Your task to perform on an android device: Check the news Image 0: 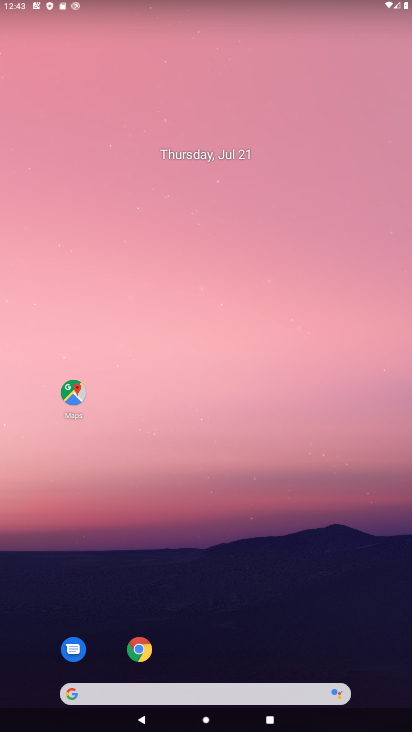
Step 0: drag from (3, 279) to (404, 278)
Your task to perform on an android device: Check the news Image 1: 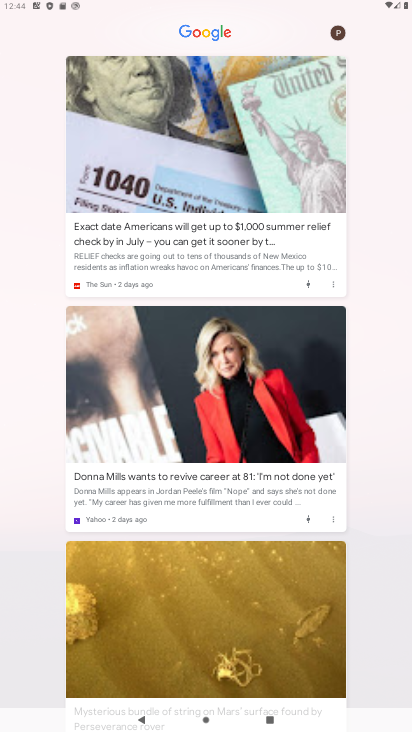
Step 1: task complete